Your task to perform on an android device: Is it going to rain tomorrow? Image 0: 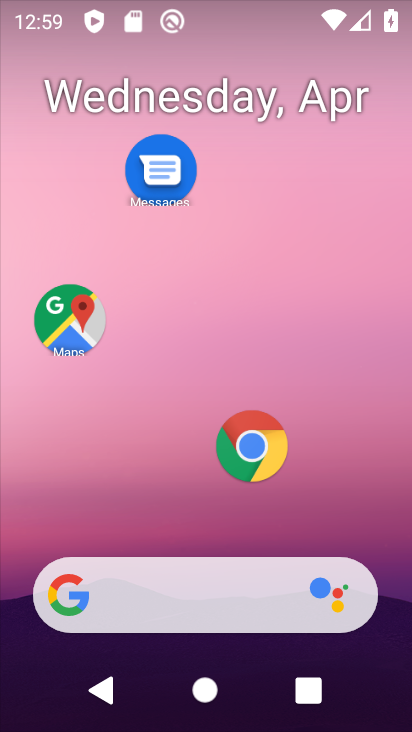
Step 0: drag from (51, 218) to (381, 237)
Your task to perform on an android device: Is it going to rain tomorrow? Image 1: 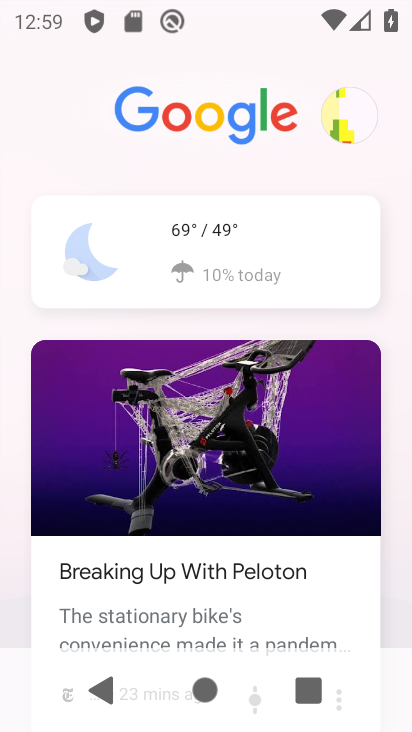
Step 1: click (285, 231)
Your task to perform on an android device: Is it going to rain tomorrow? Image 2: 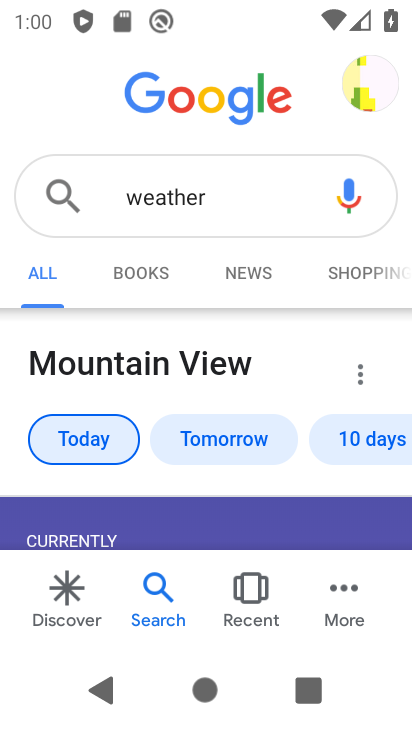
Step 2: click (234, 433)
Your task to perform on an android device: Is it going to rain tomorrow? Image 3: 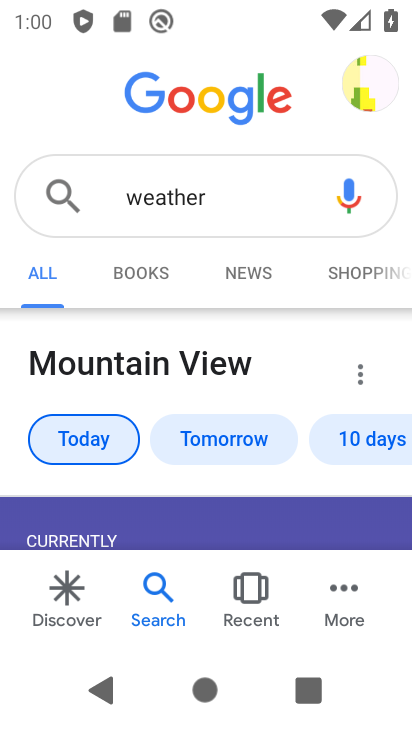
Step 3: click (213, 438)
Your task to perform on an android device: Is it going to rain tomorrow? Image 4: 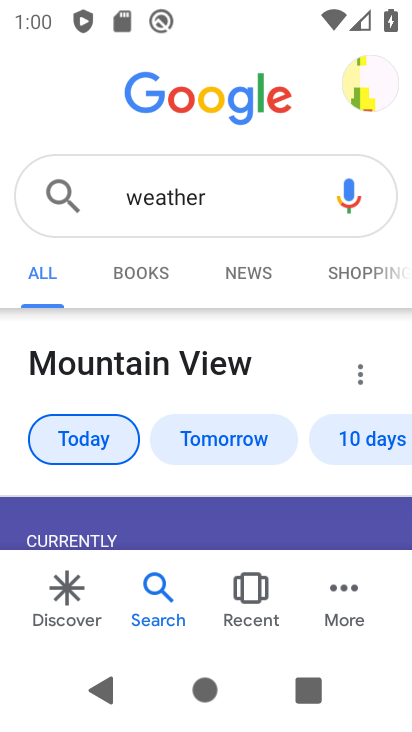
Step 4: task complete